Your task to perform on an android device: Clear the cart on ebay. Image 0: 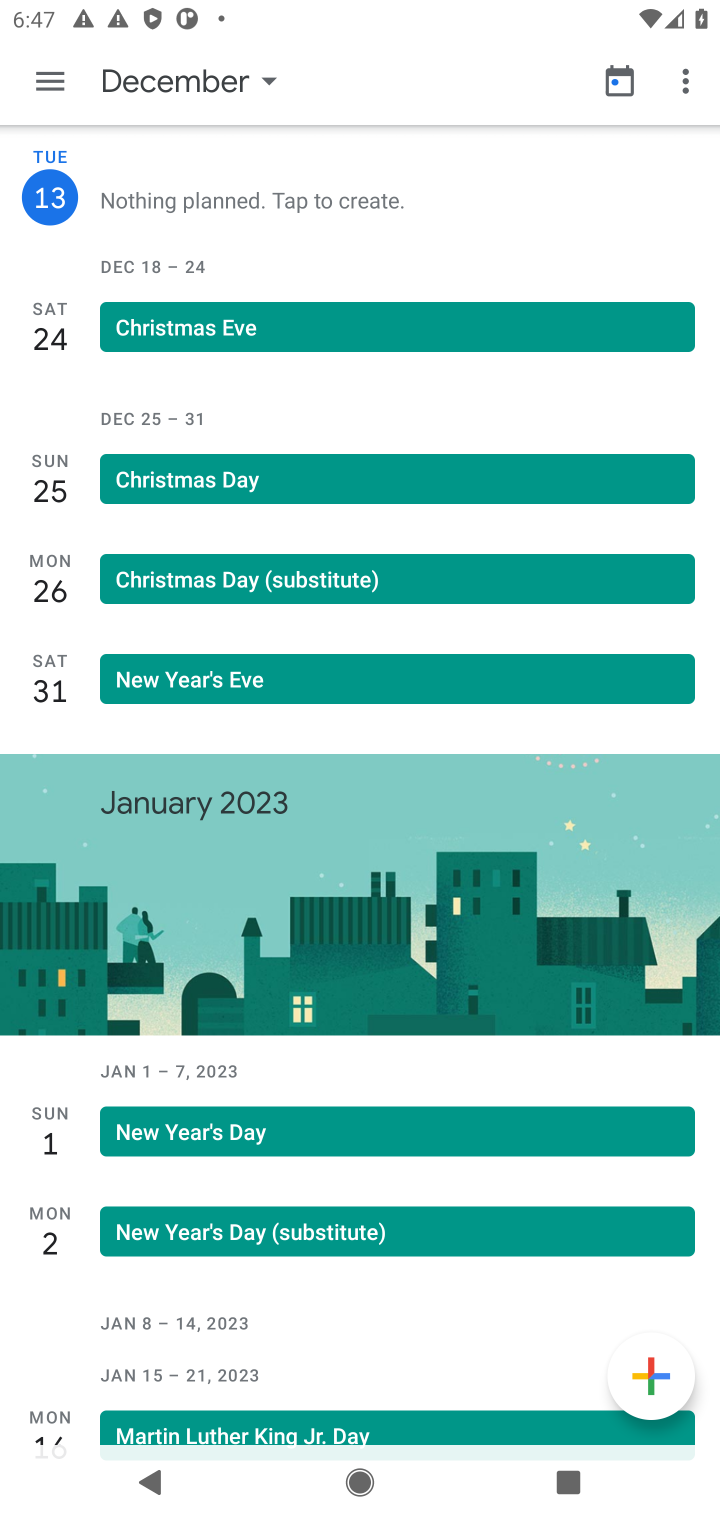
Step 0: press home button
Your task to perform on an android device: Clear the cart on ebay. Image 1: 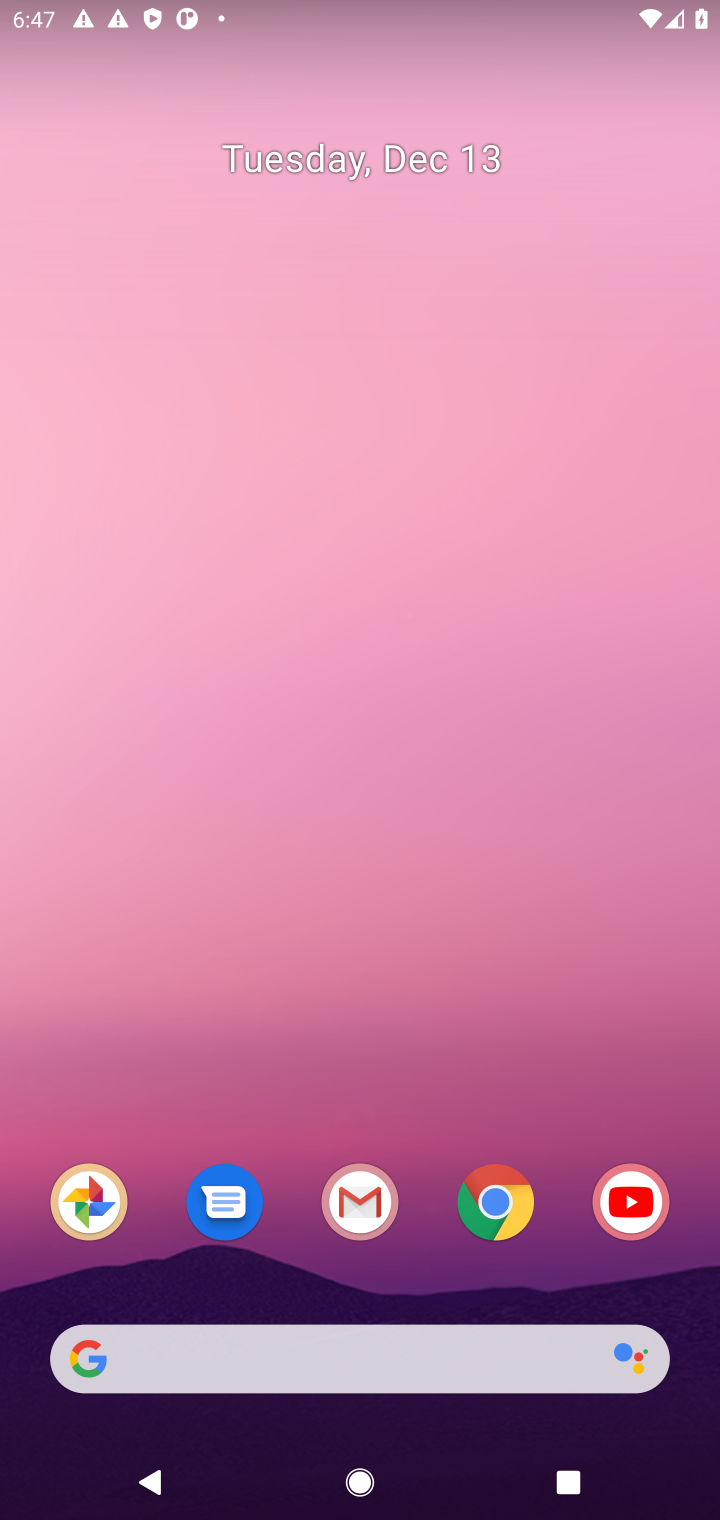
Step 1: click (498, 1203)
Your task to perform on an android device: Clear the cart on ebay. Image 2: 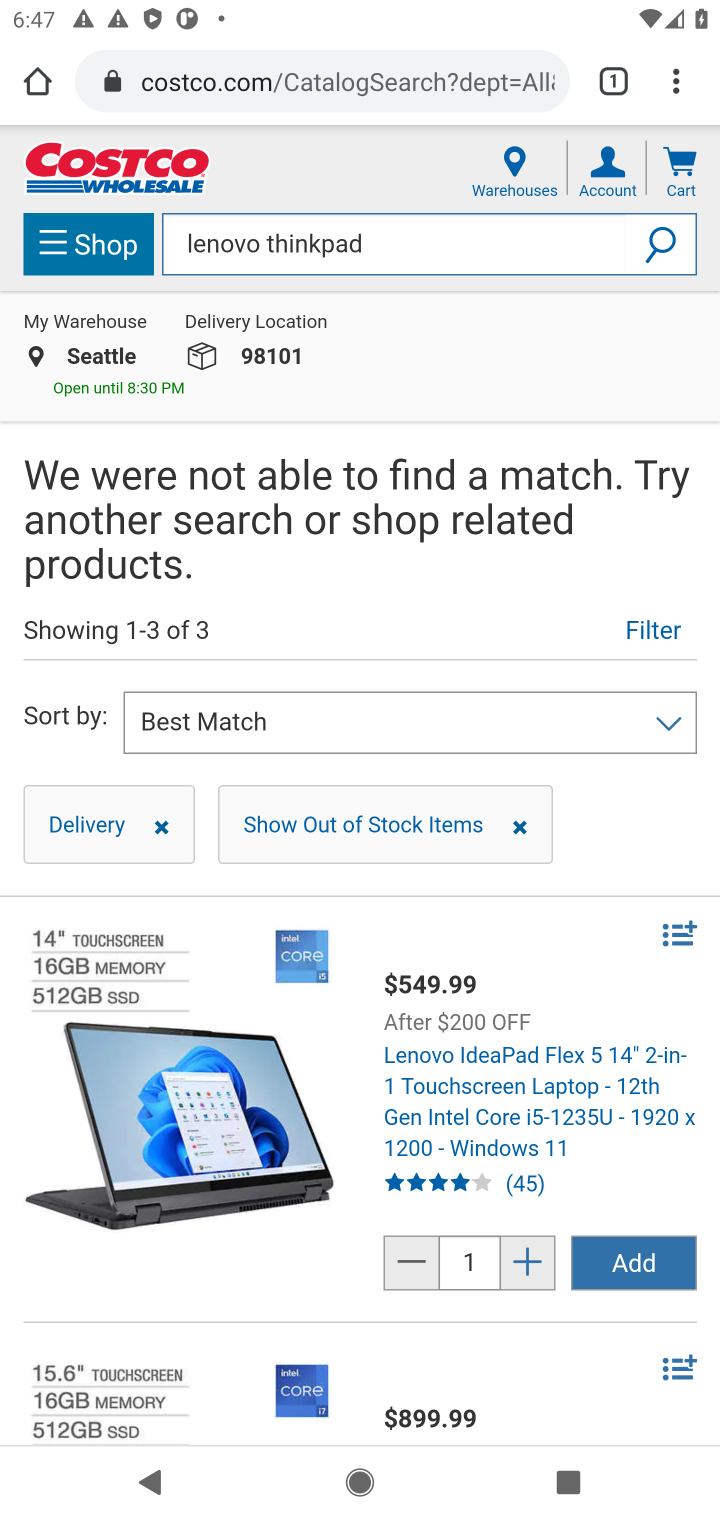
Step 2: click (269, 74)
Your task to perform on an android device: Clear the cart on ebay. Image 3: 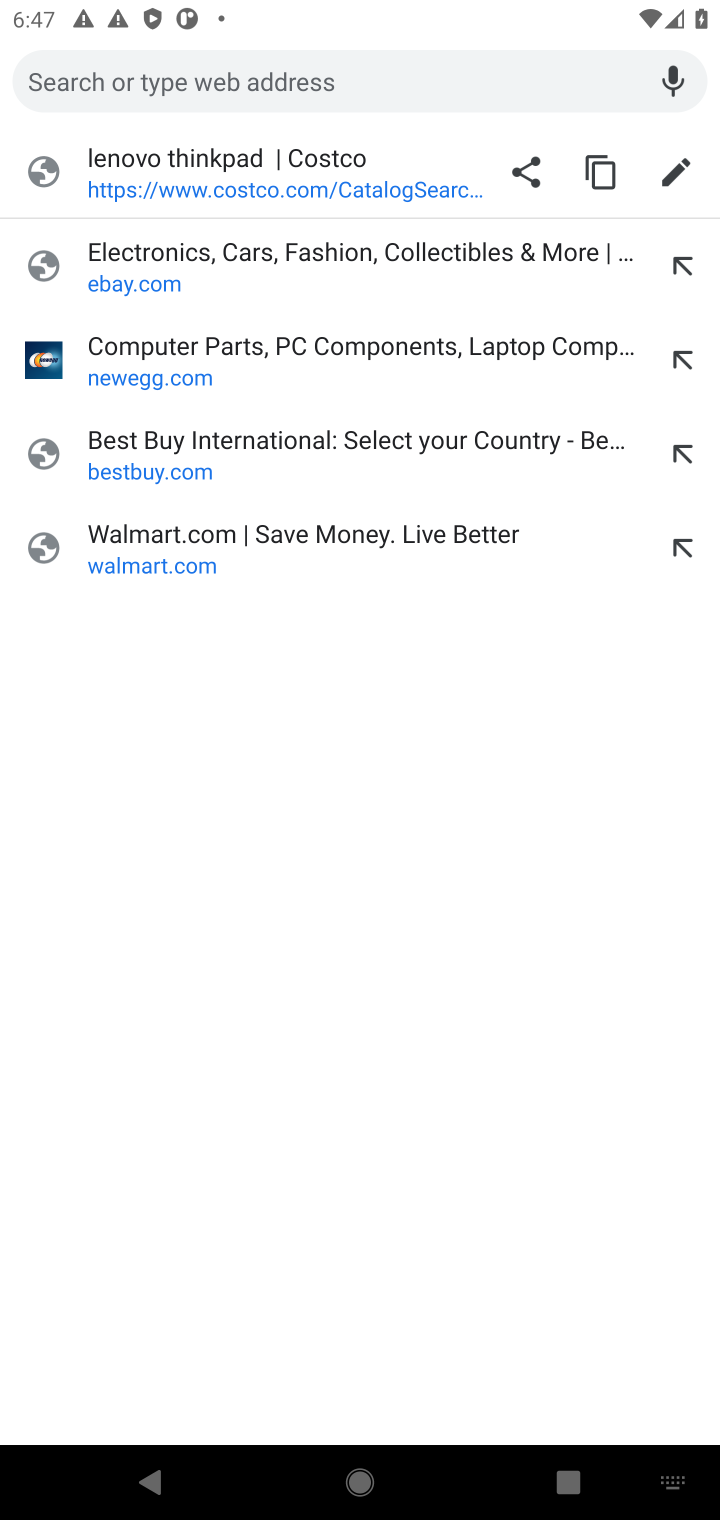
Step 3: click (149, 275)
Your task to perform on an android device: Clear the cart on ebay. Image 4: 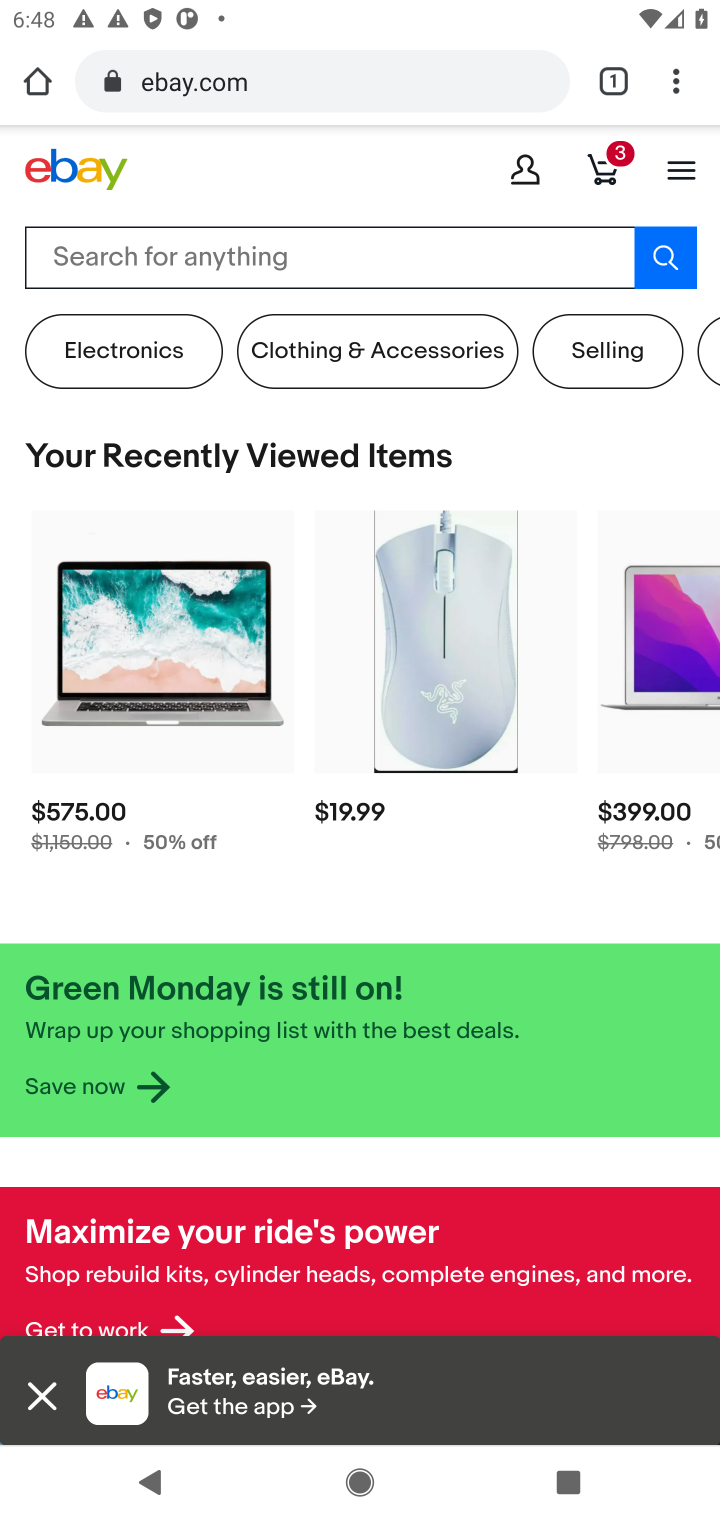
Step 4: click (609, 172)
Your task to perform on an android device: Clear the cart on ebay. Image 5: 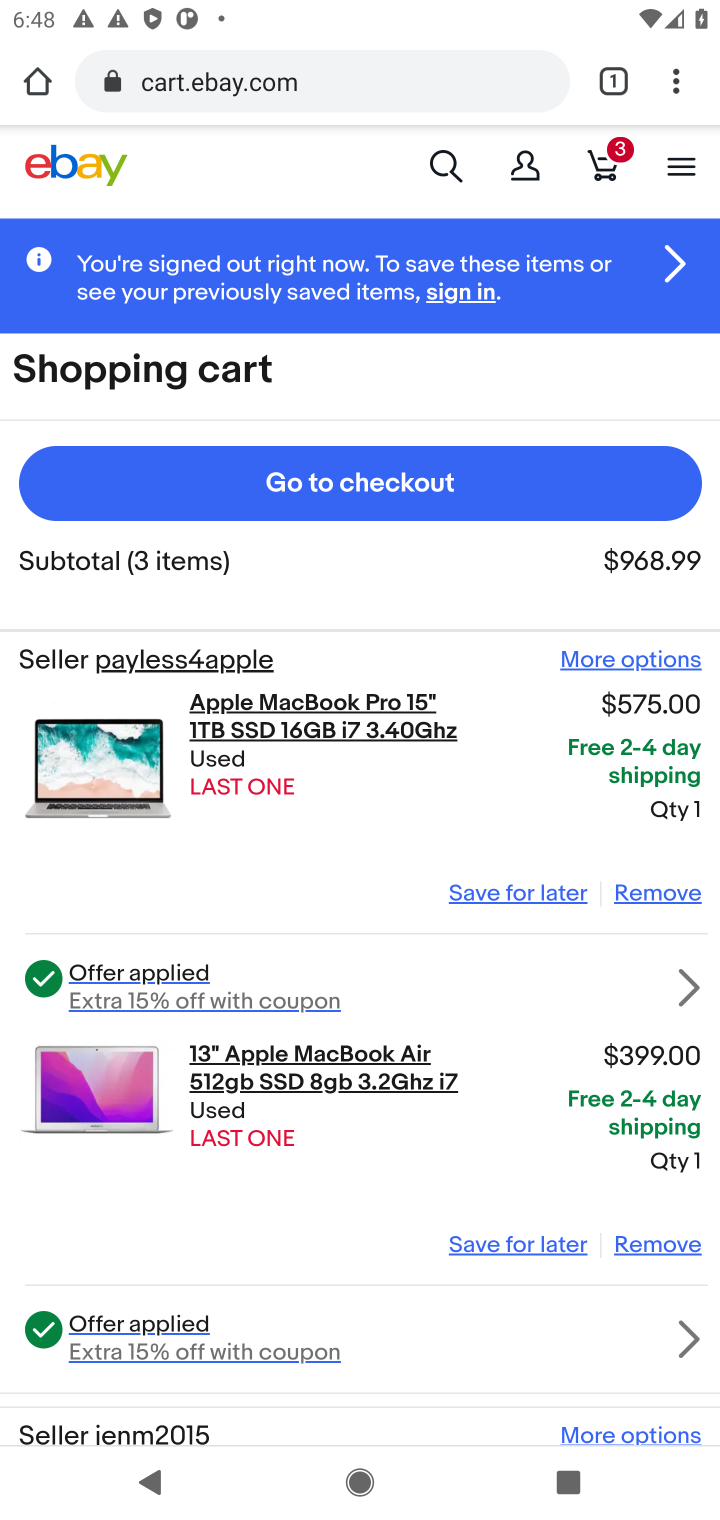
Step 5: click (654, 901)
Your task to perform on an android device: Clear the cart on ebay. Image 6: 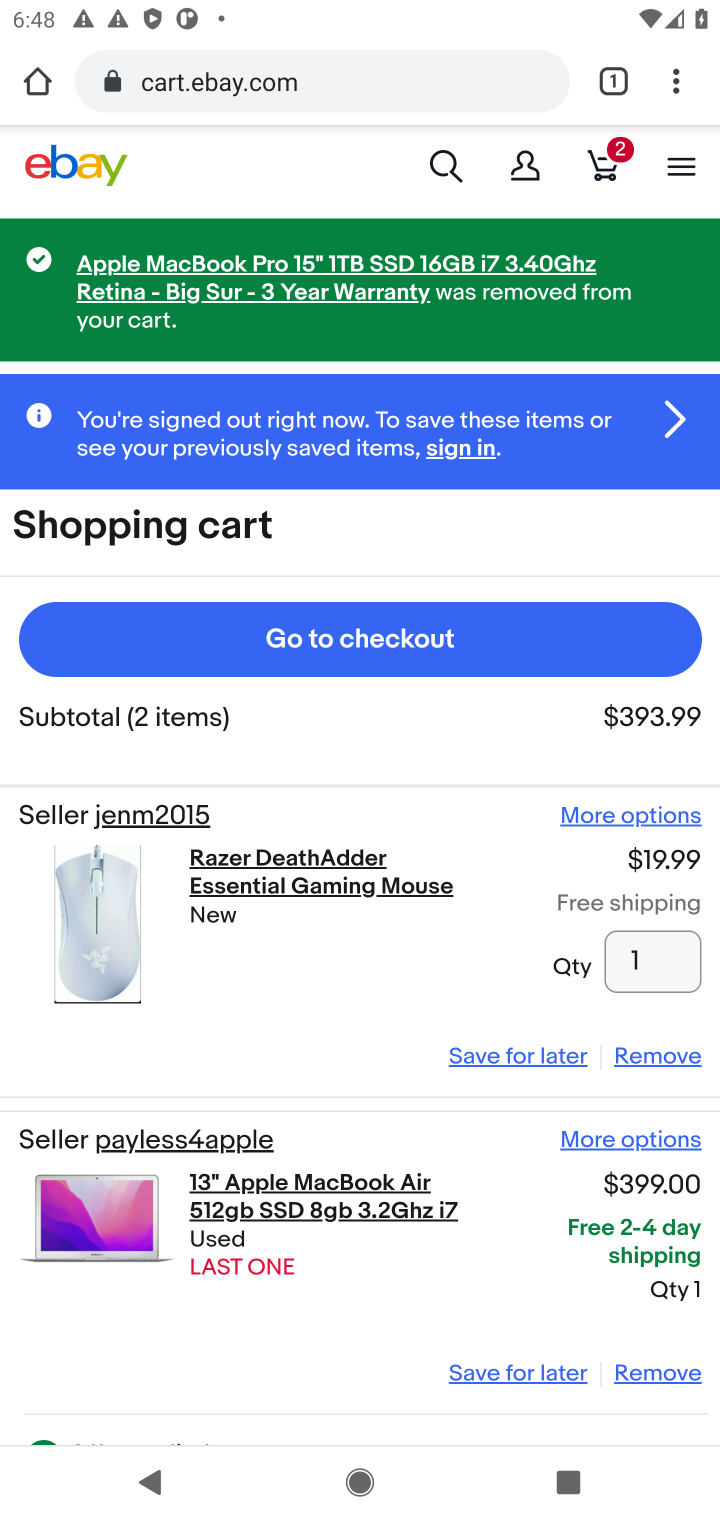
Step 6: click (644, 1064)
Your task to perform on an android device: Clear the cart on ebay. Image 7: 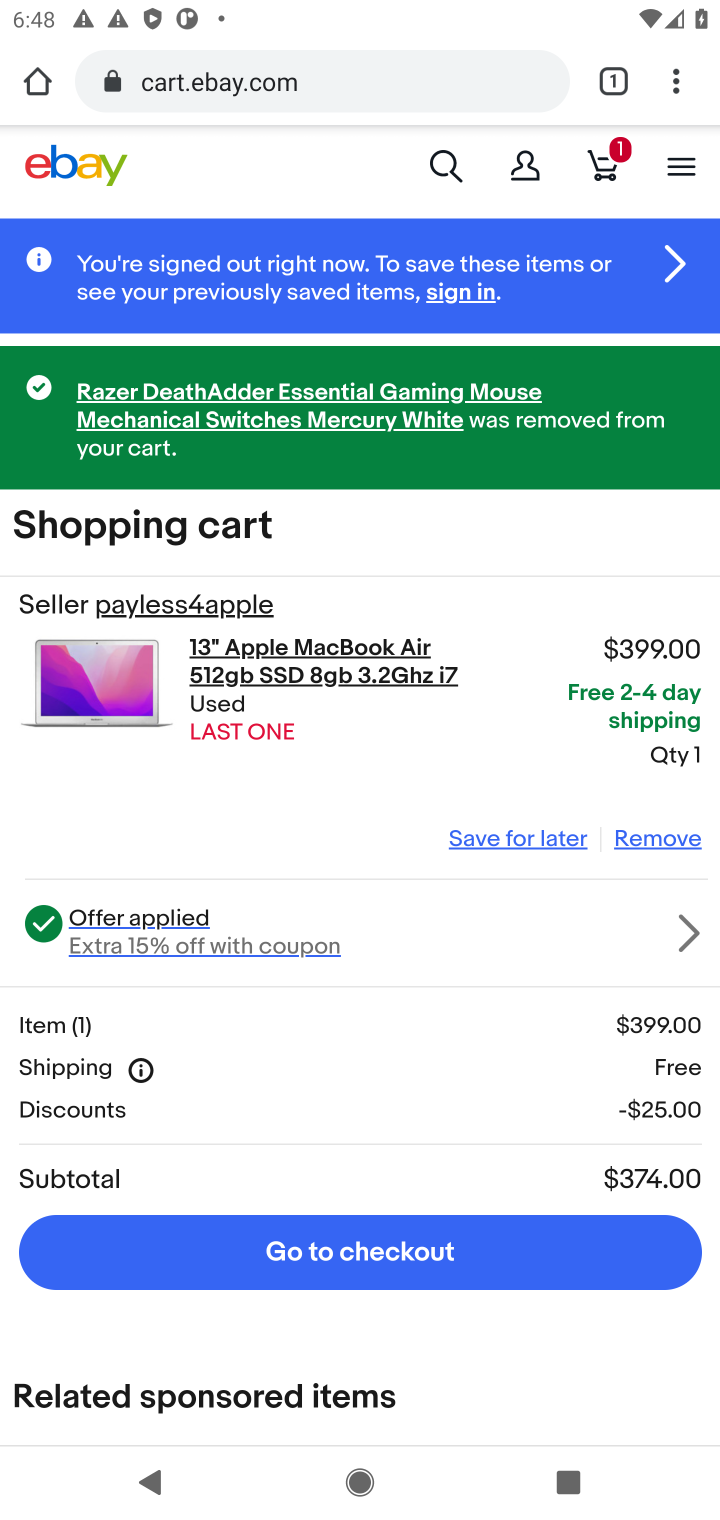
Step 7: click (651, 841)
Your task to perform on an android device: Clear the cart on ebay. Image 8: 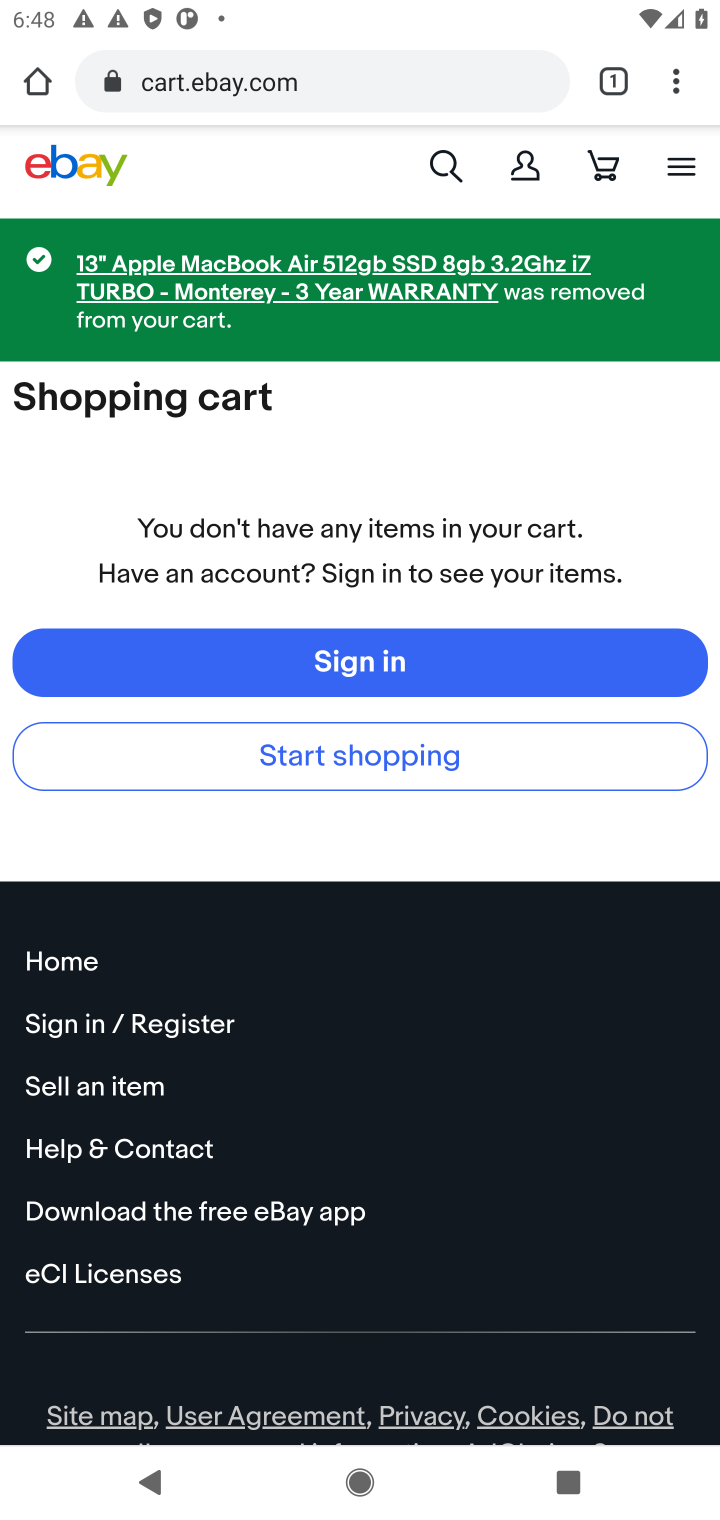
Step 8: task complete